Your task to perform on an android device: delete a single message in the gmail app Image 0: 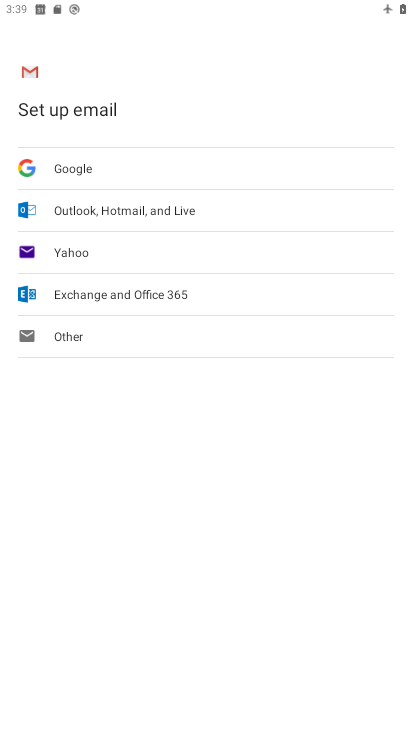
Step 0: press home button
Your task to perform on an android device: delete a single message in the gmail app Image 1: 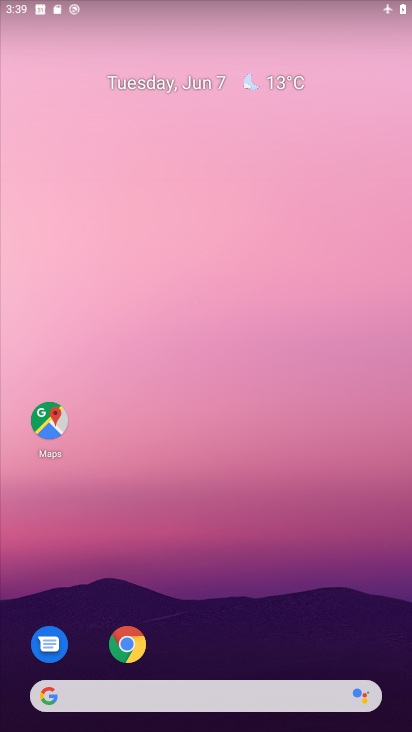
Step 1: drag from (312, 608) to (317, 219)
Your task to perform on an android device: delete a single message in the gmail app Image 2: 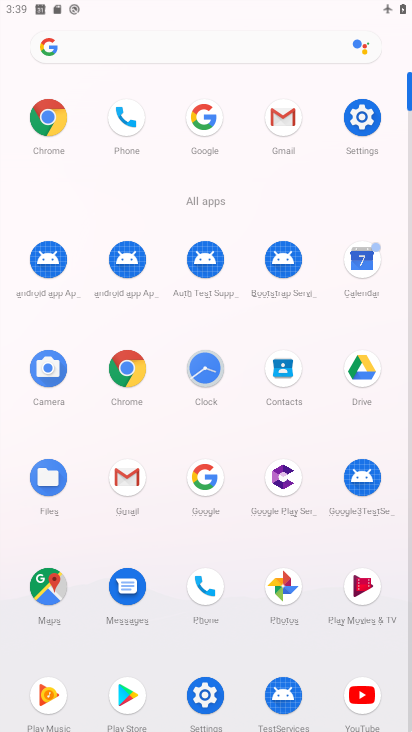
Step 2: click (125, 485)
Your task to perform on an android device: delete a single message in the gmail app Image 3: 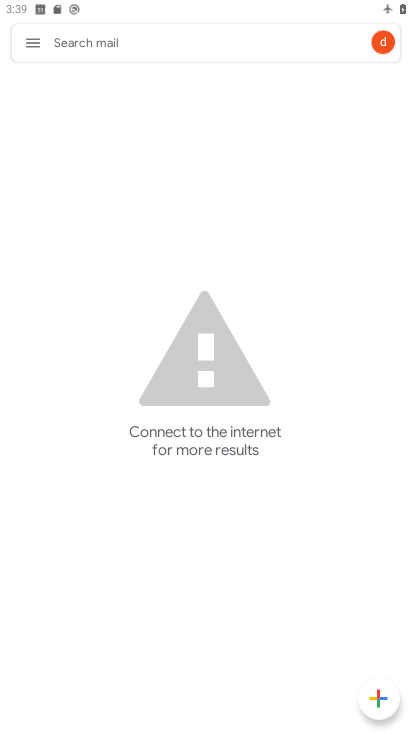
Step 3: click (38, 42)
Your task to perform on an android device: delete a single message in the gmail app Image 4: 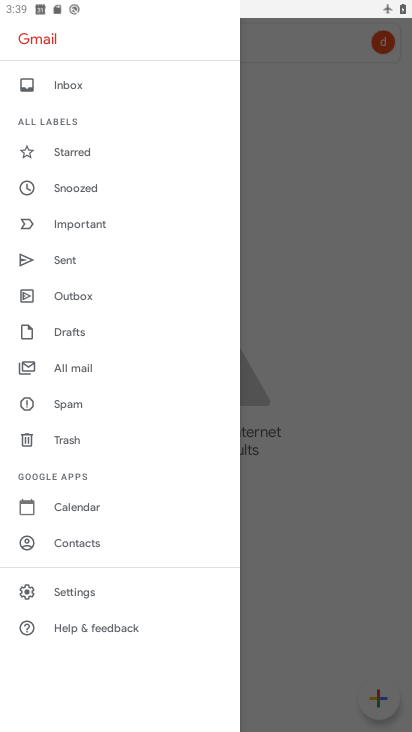
Step 4: click (80, 92)
Your task to perform on an android device: delete a single message in the gmail app Image 5: 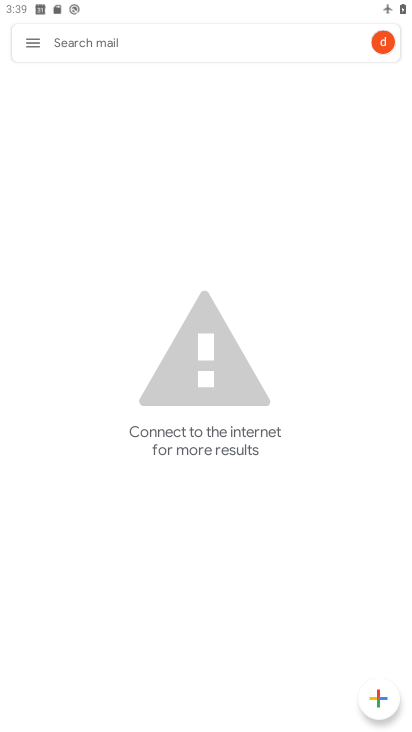
Step 5: task complete